Your task to perform on an android device: toggle location history Image 0: 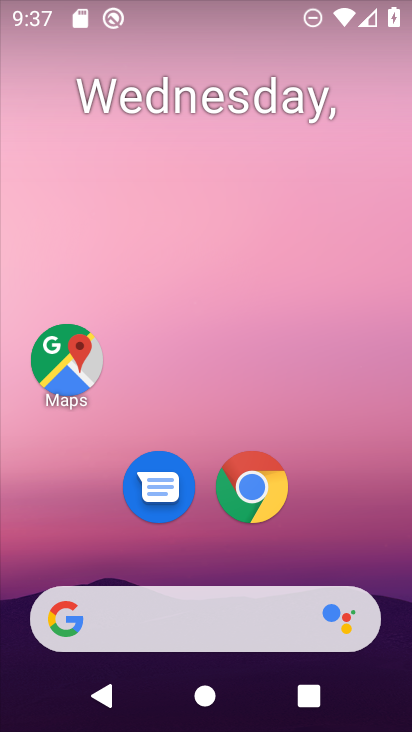
Step 0: drag from (279, 642) to (205, 58)
Your task to perform on an android device: toggle location history Image 1: 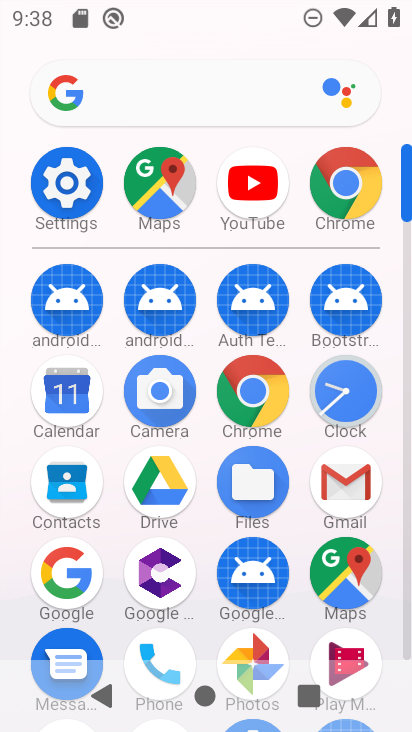
Step 1: click (84, 198)
Your task to perform on an android device: toggle location history Image 2: 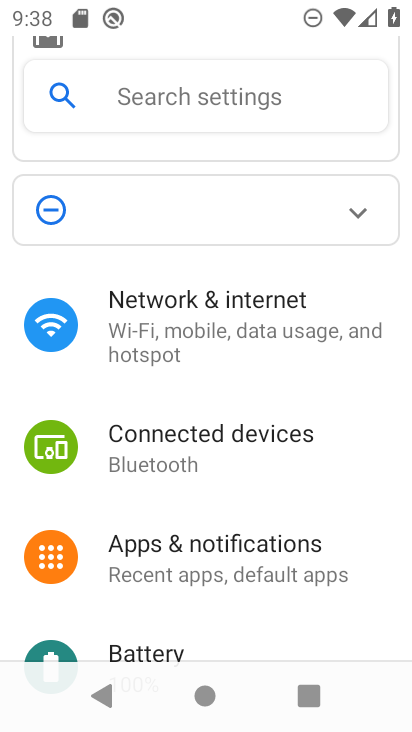
Step 2: click (194, 103)
Your task to perform on an android device: toggle location history Image 3: 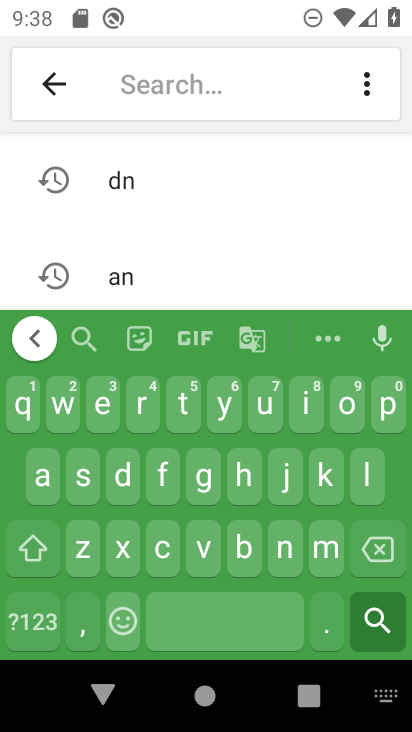
Step 3: click (372, 474)
Your task to perform on an android device: toggle location history Image 4: 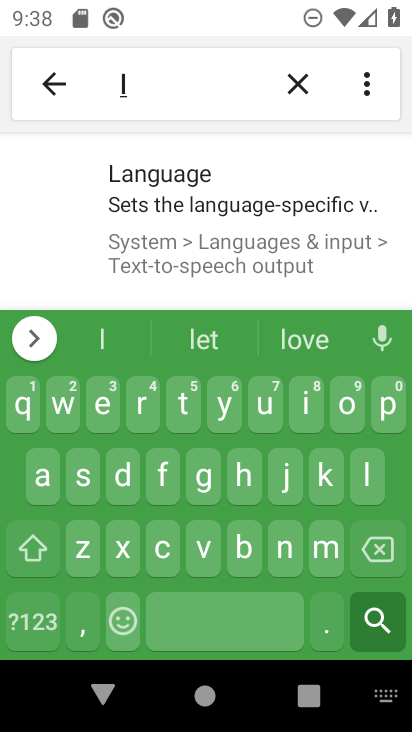
Step 4: click (341, 418)
Your task to perform on an android device: toggle location history Image 5: 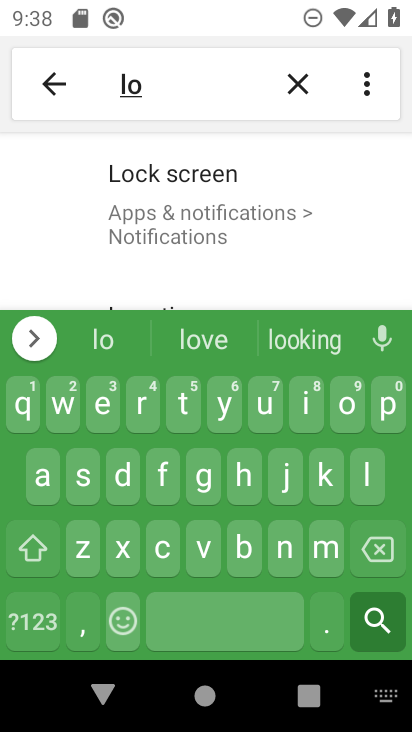
Step 5: drag from (181, 259) to (183, 206)
Your task to perform on an android device: toggle location history Image 6: 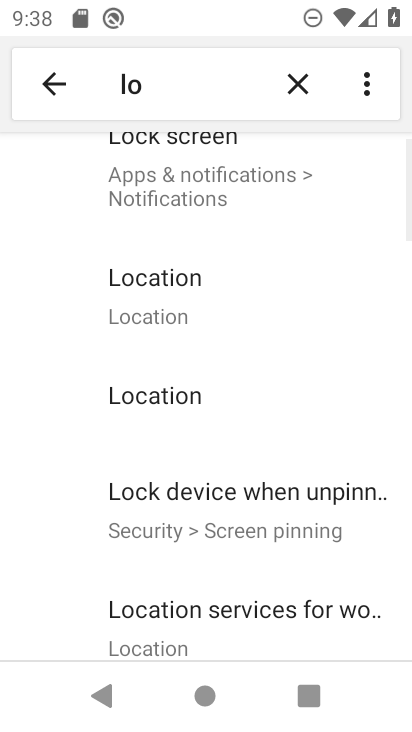
Step 6: click (200, 304)
Your task to perform on an android device: toggle location history Image 7: 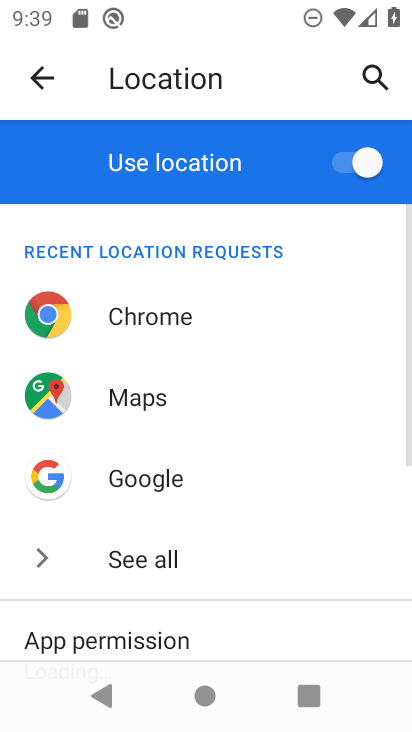
Step 7: task complete